Your task to perform on an android device: open the mobile data screen to see how much data has been used Image 0: 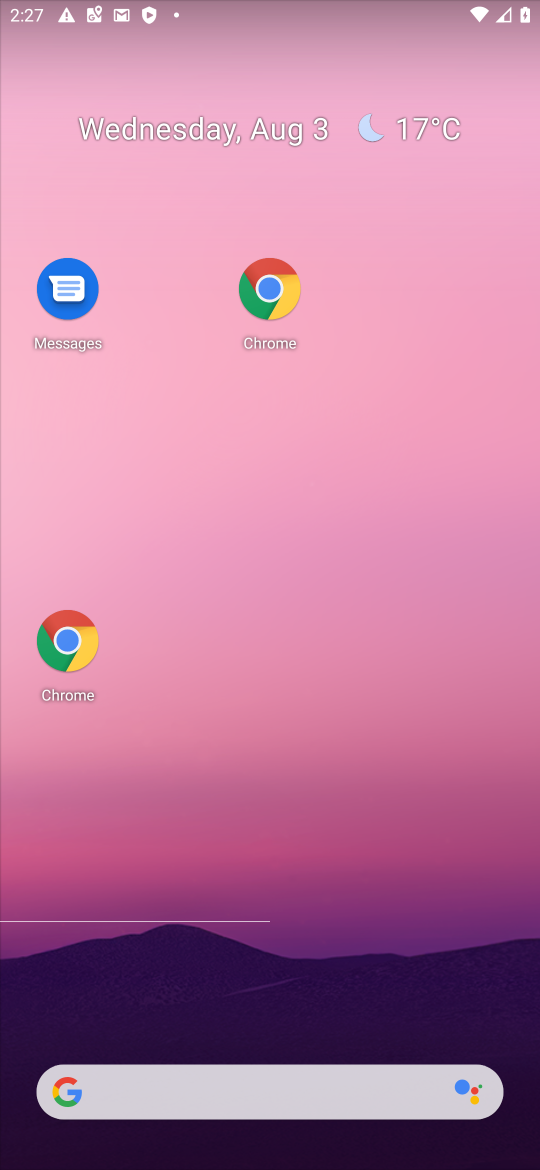
Step 0: drag from (360, 958) to (337, 273)
Your task to perform on an android device: open the mobile data screen to see how much data has been used Image 1: 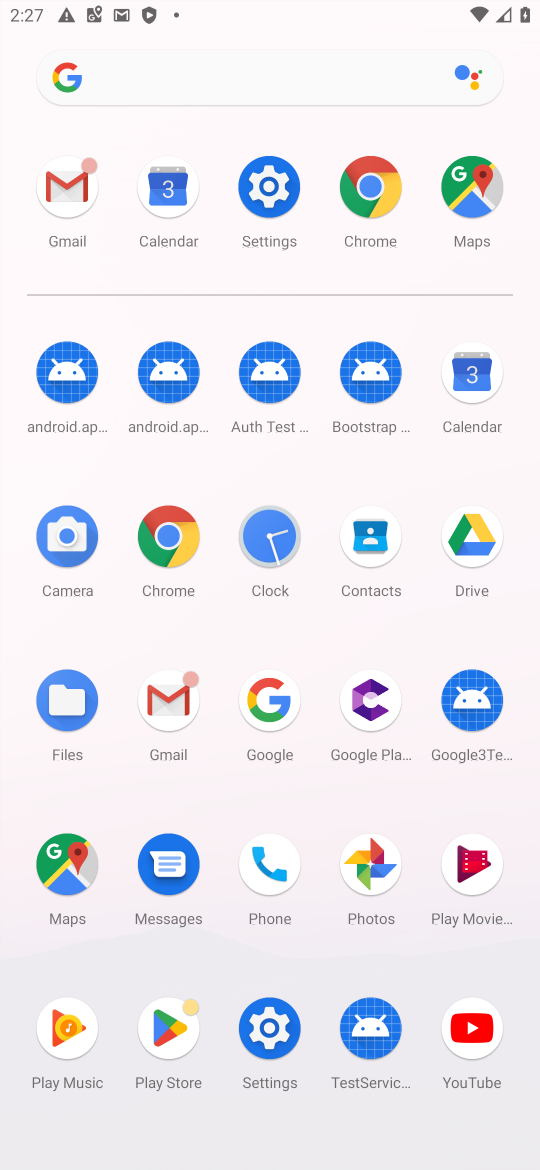
Step 1: click (277, 203)
Your task to perform on an android device: open the mobile data screen to see how much data has been used Image 2: 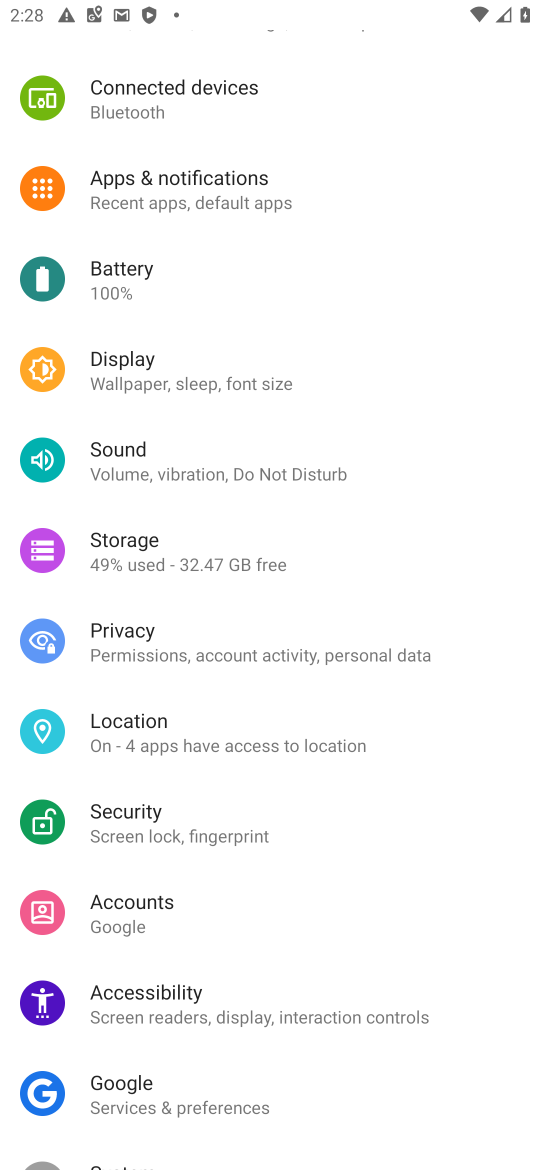
Step 2: drag from (277, 203) to (273, 849)
Your task to perform on an android device: open the mobile data screen to see how much data has been used Image 3: 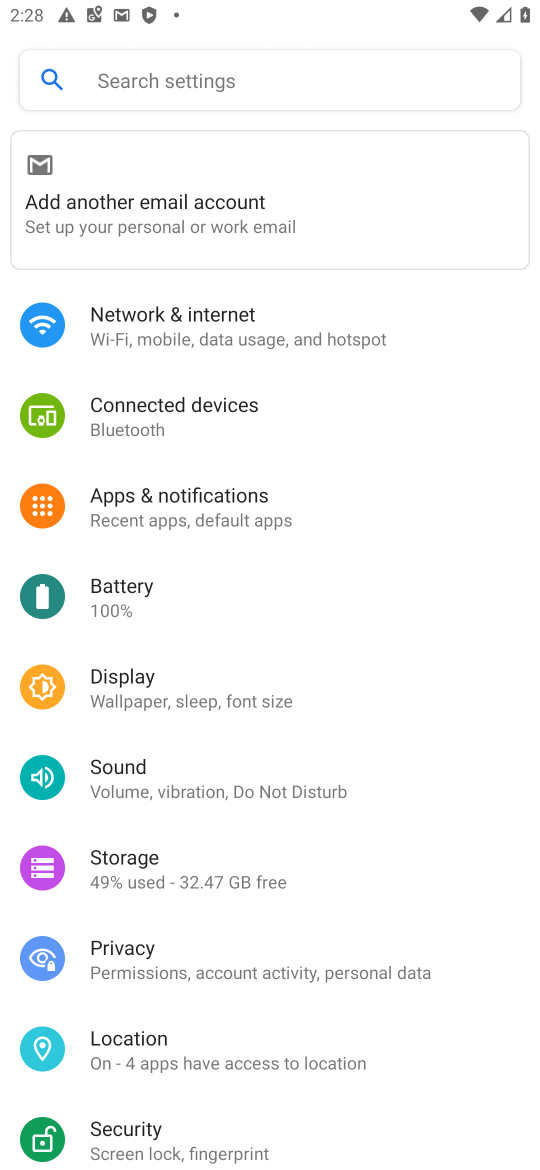
Step 3: click (249, 338)
Your task to perform on an android device: open the mobile data screen to see how much data has been used Image 4: 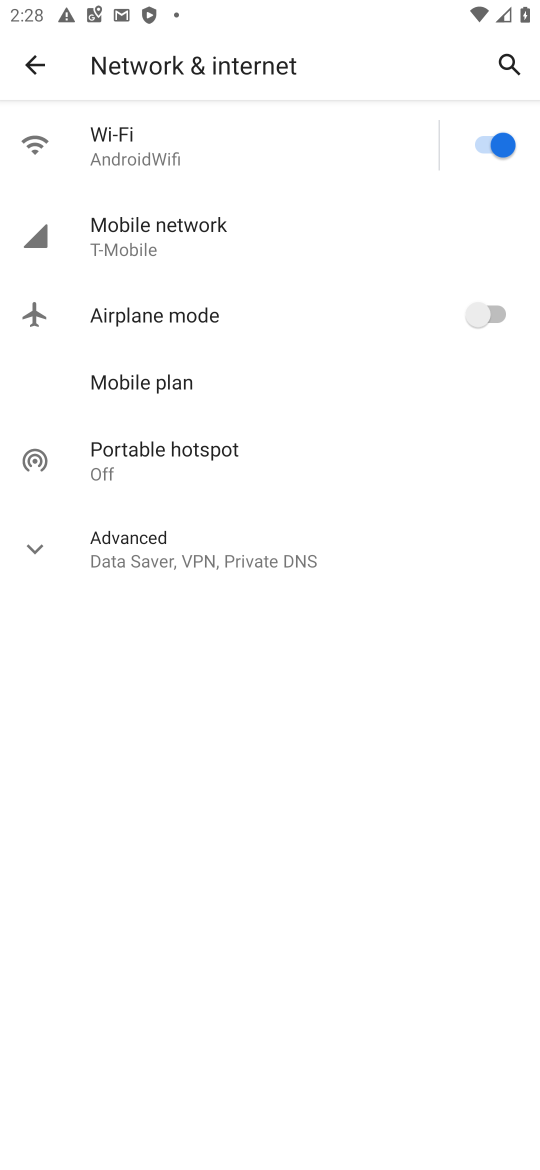
Step 4: click (190, 268)
Your task to perform on an android device: open the mobile data screen to see how much data has been used Image 5: 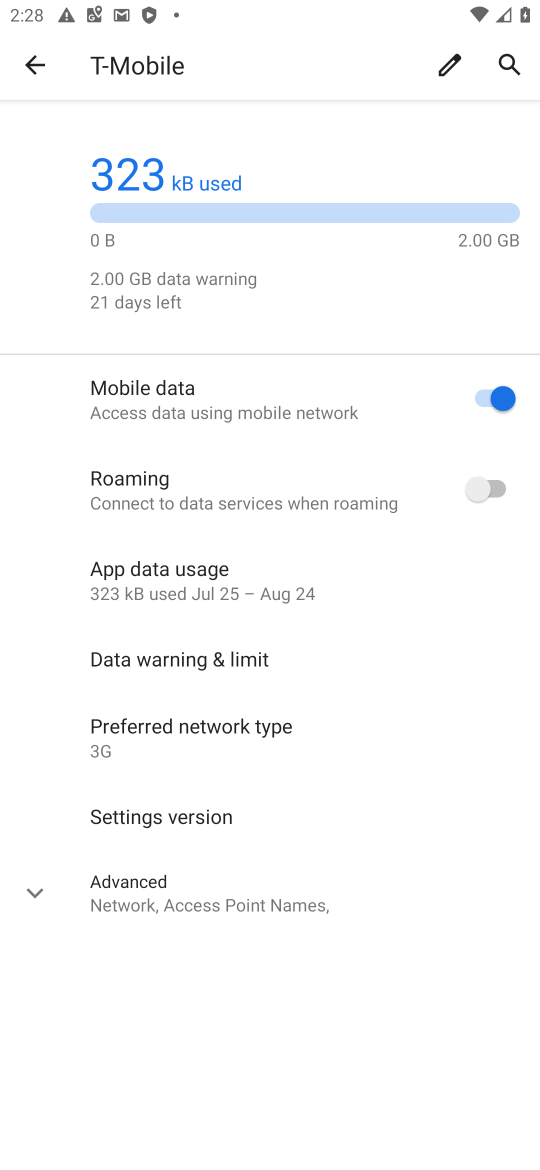
Step 5: task complete